Your task to perform on an android device: change the clock display to analog Image 0: 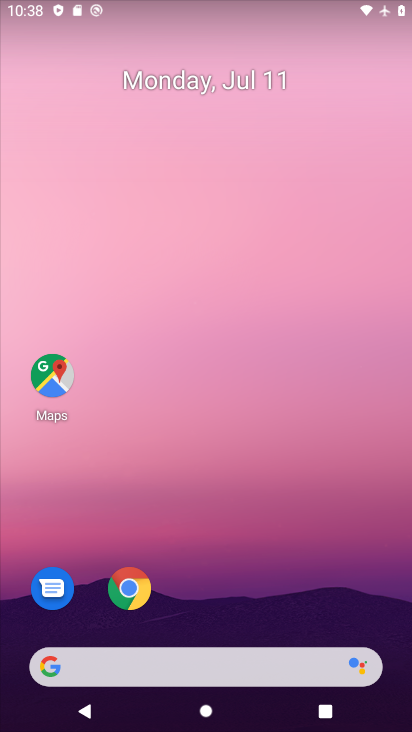
Step 0: press home button
Your task to perform on an android device: change the clock display to analog Image 1: 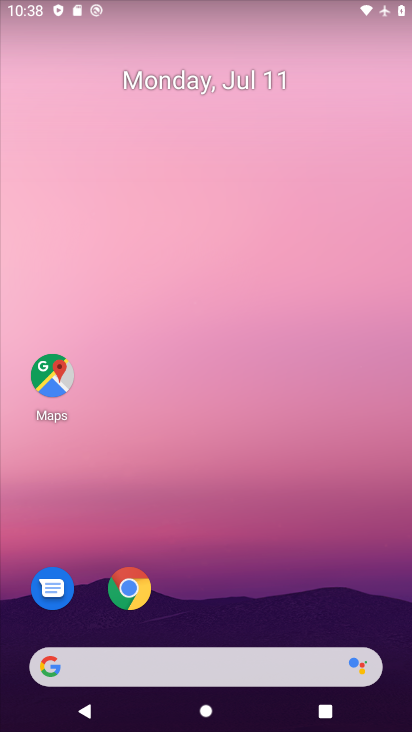
Step 1: drag from (196, 659) to (292, 166)
Your task to perform on an android device: change the clock display to analog Image 2: 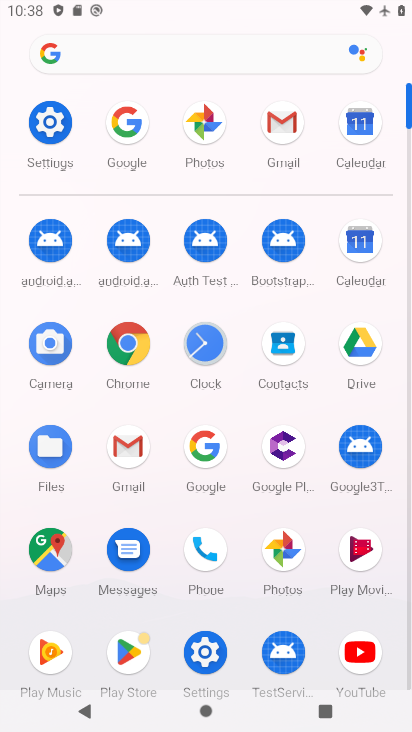
Step 2: click (195, 338)
Your task to perform on an android device: change the clock display to analog Image 3: 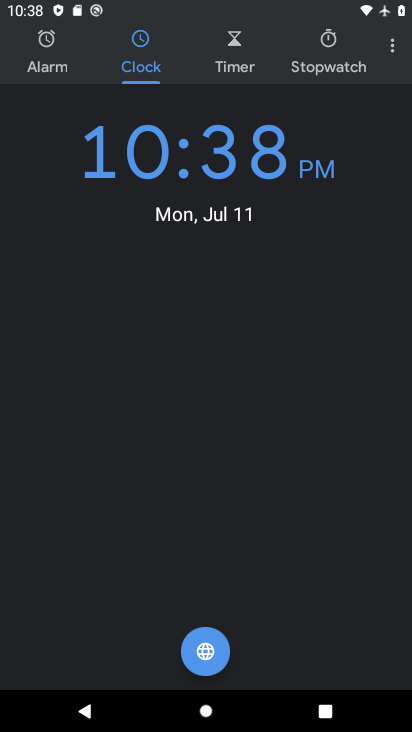
Step 3: click (397, 45)
Your task to perform on an android device: change the clock display to analog Image 4: 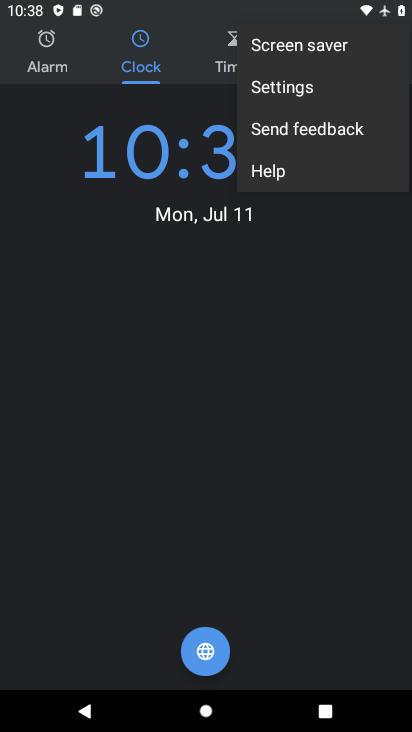
Step 4: click (311, 95)
Your task to perform on an android device: change the clock display to analog Image 5: 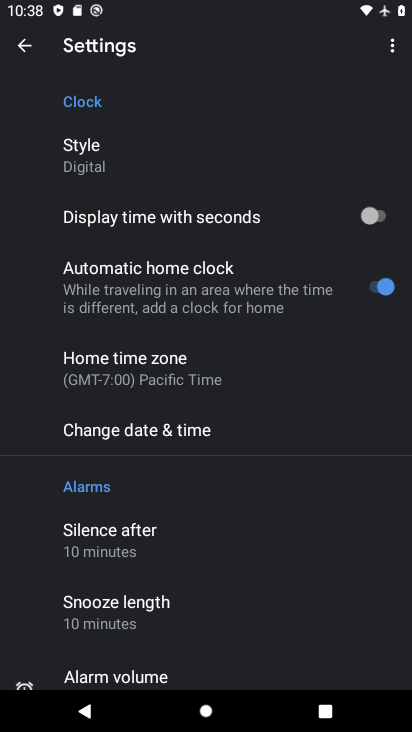
Step 5: click (102, 152)
Your task to perform on an android device: change the clock display to analog Image 6: 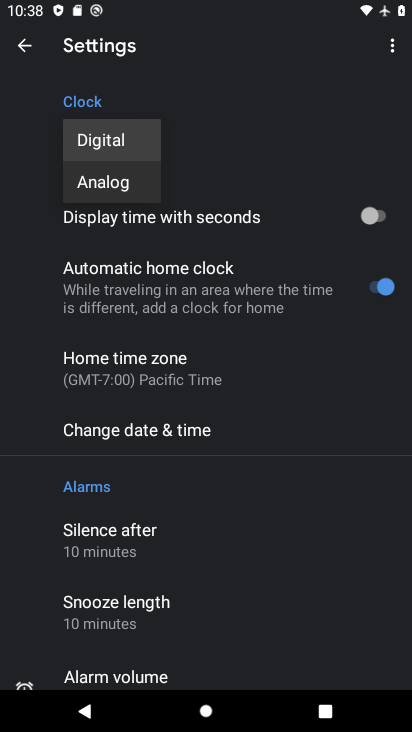
Step 6: click (105, 178)
Your task to perform on an android device: change the clock display to analog Image 7: 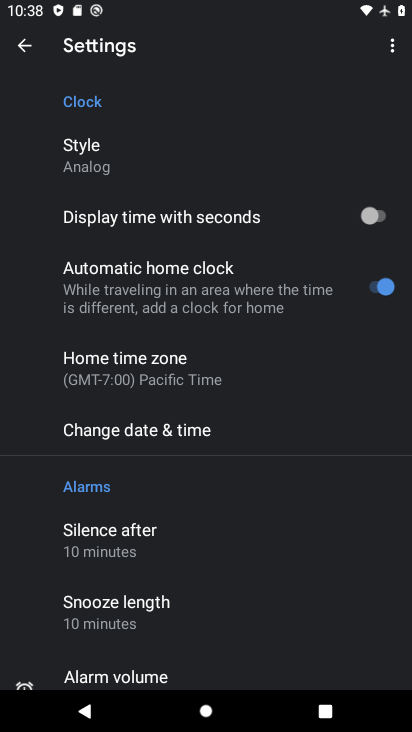
Step 7: task complete